Your task to perform on an android device: set an alarm Image 0: 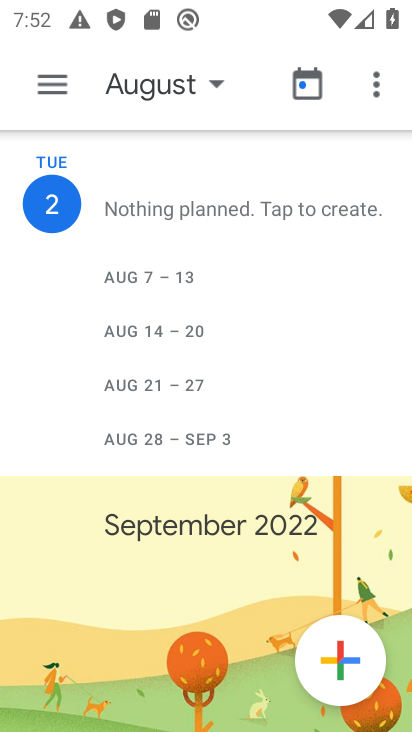
Step 0: press home button
Your task to perform on an android device: set an alarm Image 1: 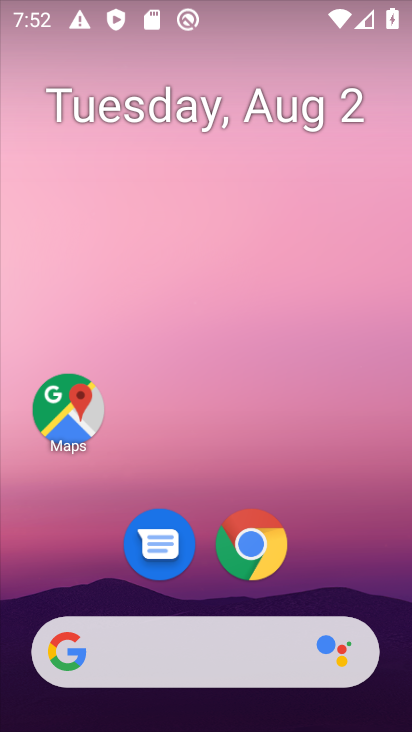
Step 1: drag from (232, 608) to (192, 277)
Your task to perform on an android device: set an alarm Image 2: 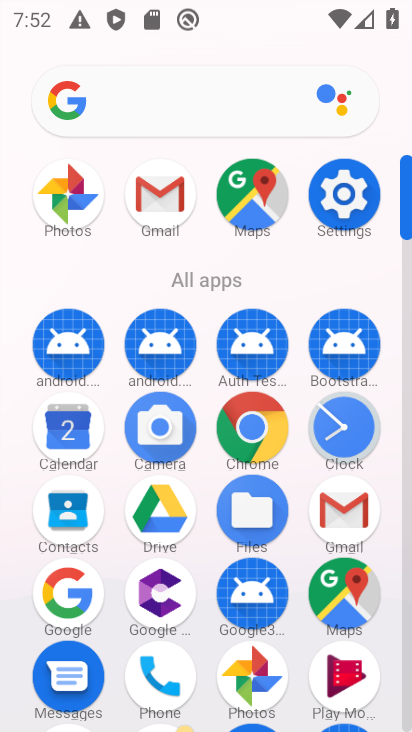
Step 2: click (325, 417)
Your task to perform on an android device: set an alarm Image 3: 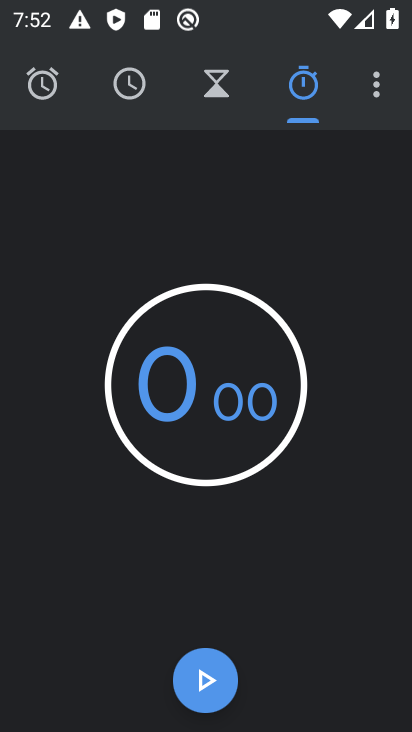
Step 3: click (42, 81)
Your task to perform on an android device: set an alarm Image 4: 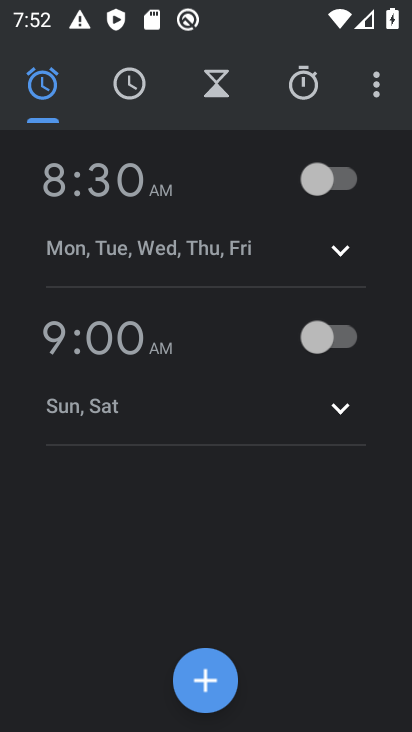
Step 4: click (197, 685)
Your task to perform on an android device: set an alarm Image 5: 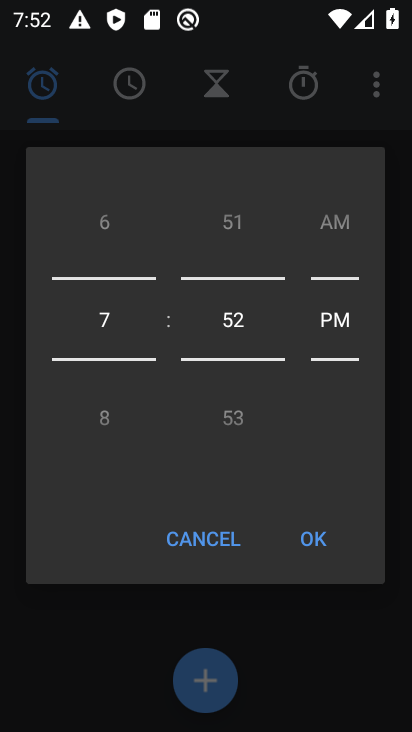
Step 5: drag from (127, 333) to (149, 442)
Your task to perform on an android device: set an alarm Image 6: 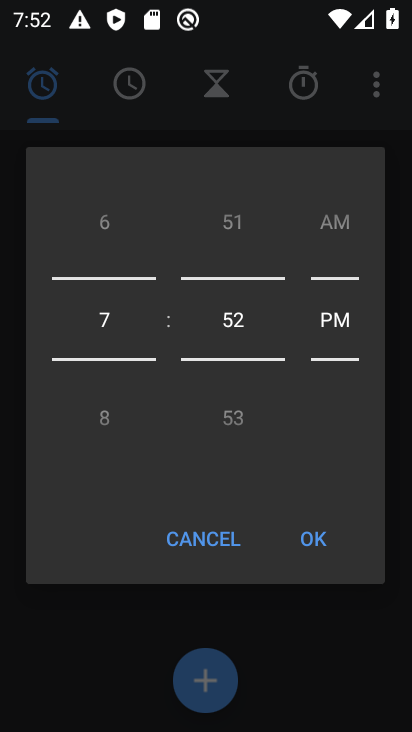
Step 6: drag from (224, 338) to (227, 167)
Your task to perform on an android device: set an alarm Image 7: 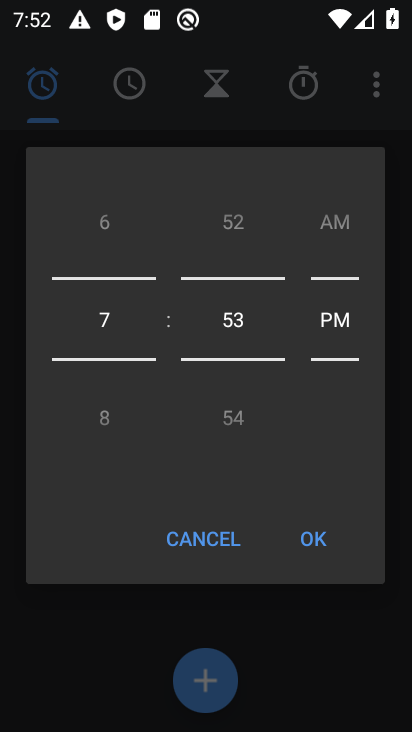
Step 7: click (318, 534)
Your task to perform on an android device: set an alarm Image 8: 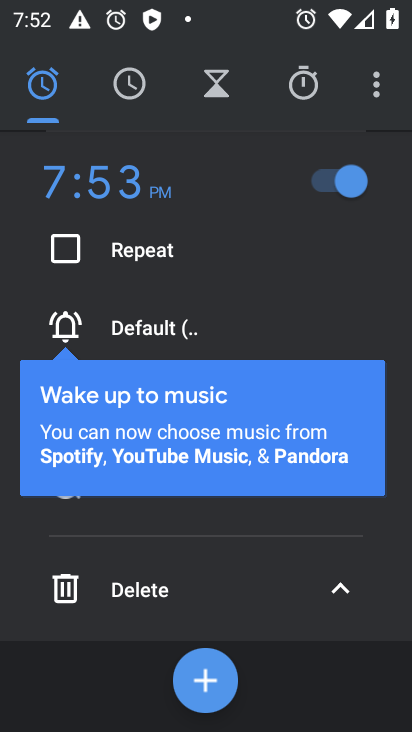
Step 8: task complete